Your task to perform on an android device: turn on location history Image 0: 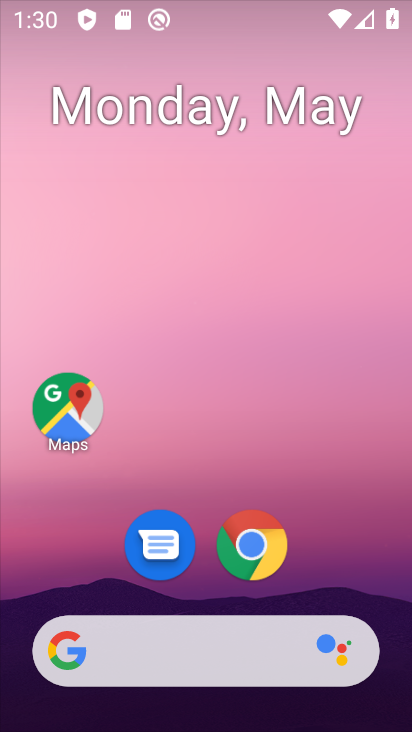
Step 0: drag from (296, 712) to (217, 127)
Your task to perform on an android device: turn on location history Image 1: 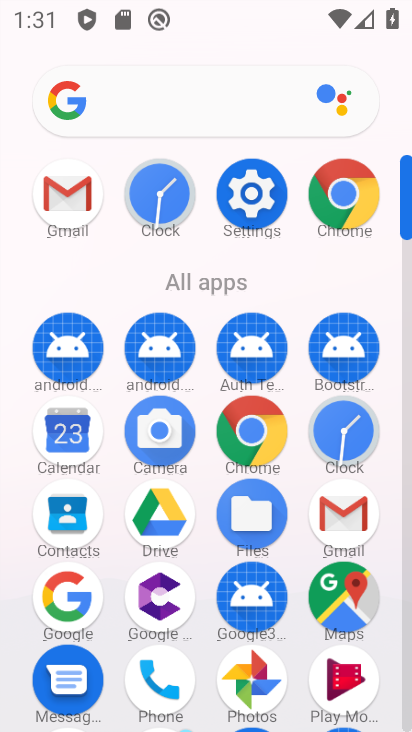
Step 1: click (251, 182)
Your task to perform on an android device: turn on location history Image 2: 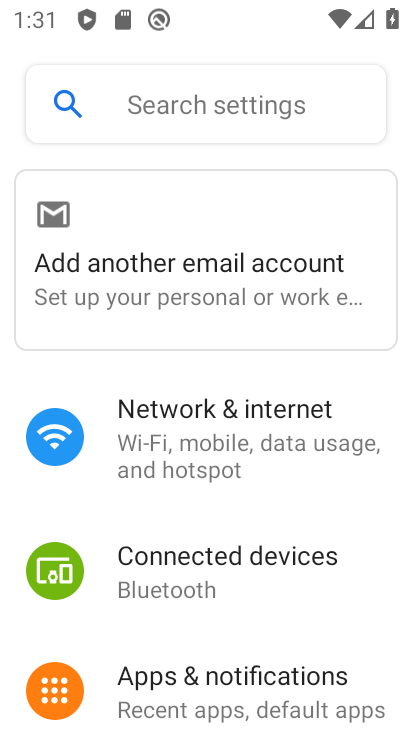
Step 2: drag from (272, 642) to (236, 100)
Your task to perform on an android device: turn on location history Image 3: 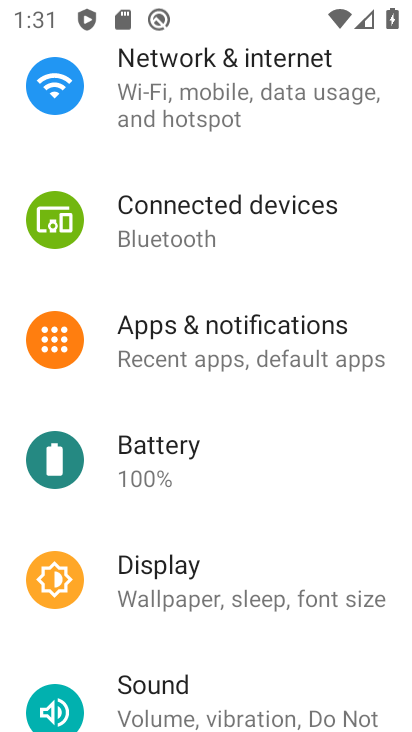
Step 3: drag from (254, 549) to (275, 122)
Your task to perform on an android device: turn on location history Image 4: 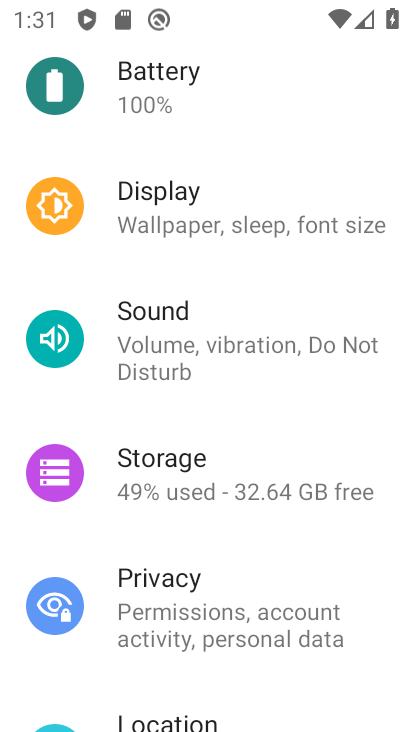
Step 4: drag from (212, 595) to (195, 141)
Your task to perform on an android device: turn on location history Image 5: 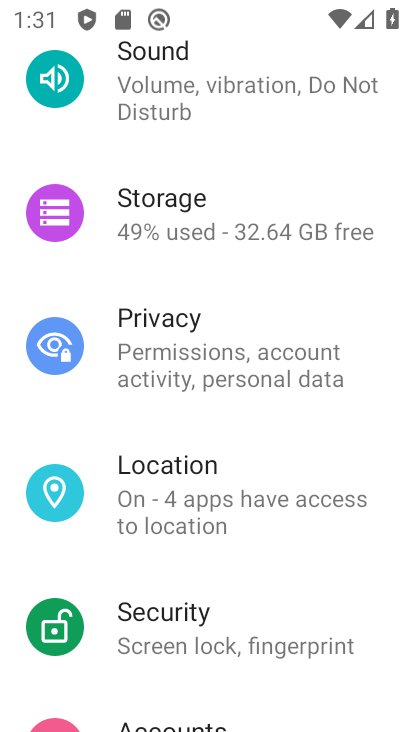
Step 5: click (200, 502)
Your task to perform on an android device: turn on location history Image 6: 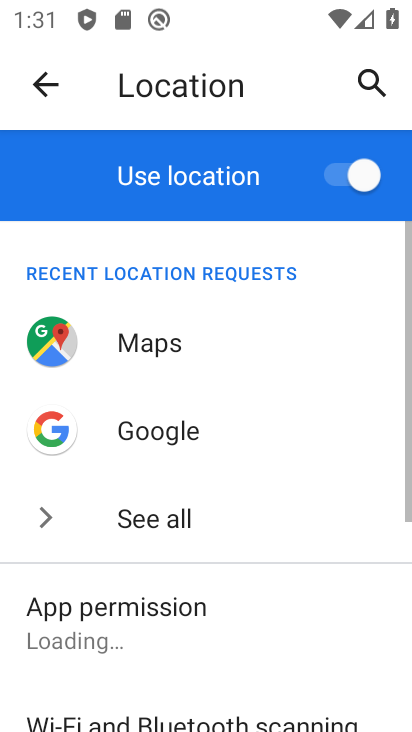
Step 6: drag from (276, 559) to (273, 61)
Your task to perform on an android device: turn on location history Image 7: 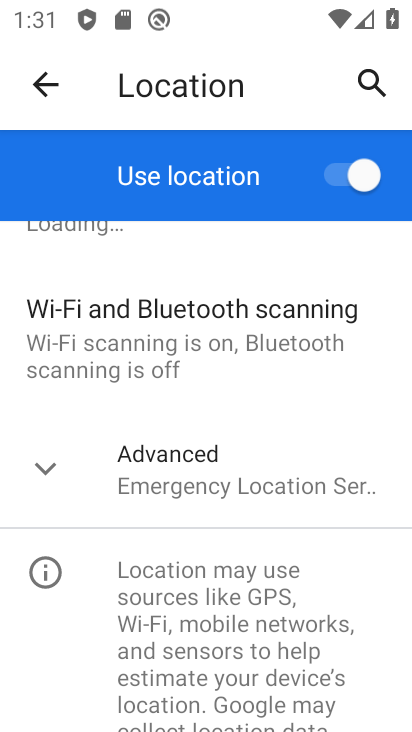
Step 7: click (283, 466)
Your task to perform on an android device: turn on location history Image 8: 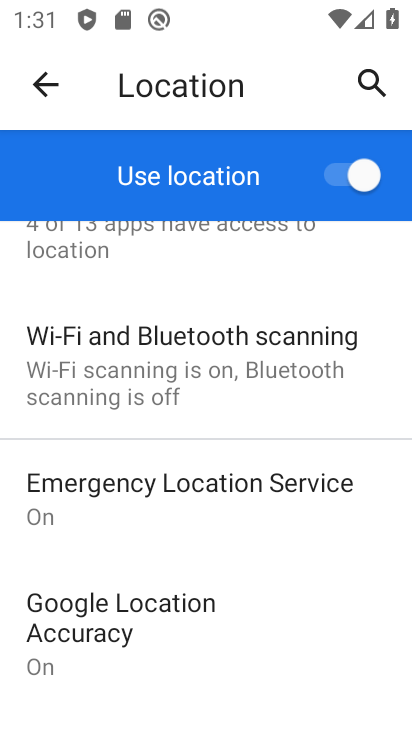
Step 8: drag from (214, 509) to (236, 78)
Your task to perform on an android device: turn on location history Image 9: 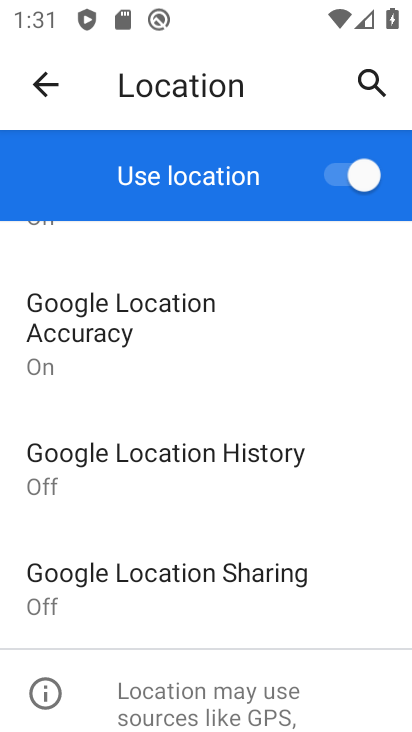
Step 9: click (297, 466)
Your task to perform on an android device: turn on location history Image 10: 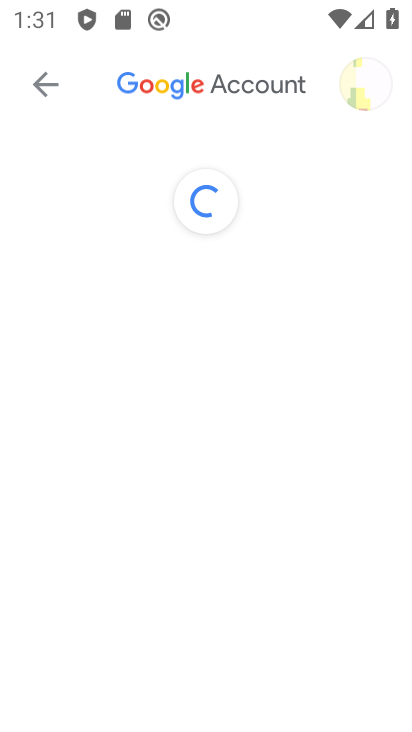
Step 10: drag from (205, 612) to (257, 33)
Your task to perform on an android device: turn on location history Image 11: 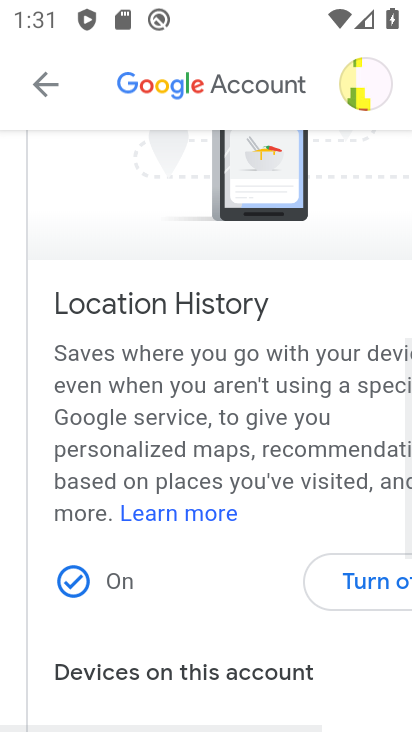
Step 11: drag from (194, 540) to (205, 95)
Your task to perform on an android device: turn on location history Image 12: 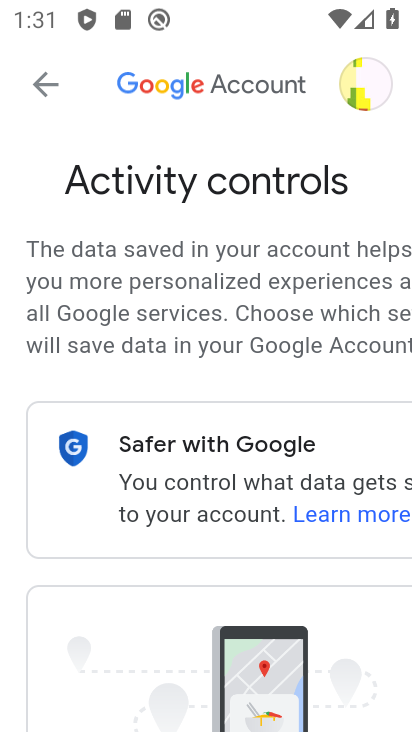
Step 12: drag from (285, 616) to (242, 104)
Your task to perform on an android device: turn on location history Image 13: 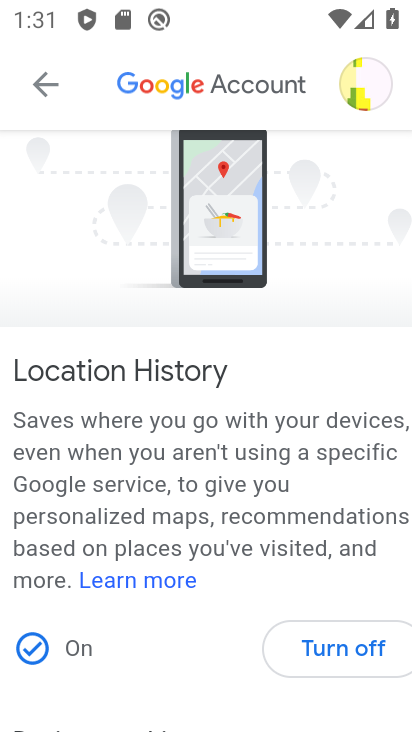
Step 13: click (331, 638)
Your task to perform on an android device: turn on location history Image 14: 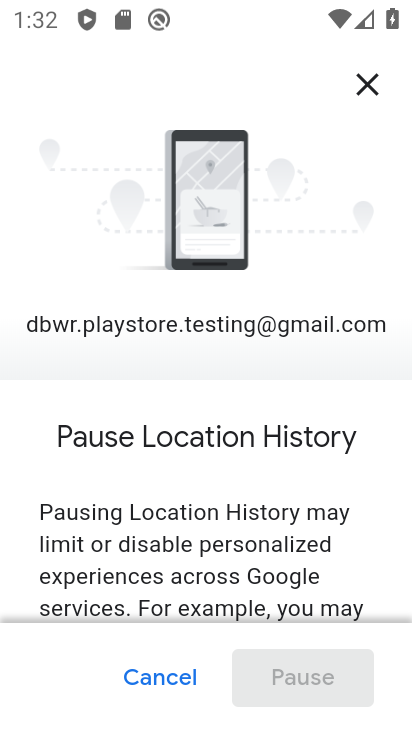
Step 14: drag from (318, 585) to (268, 124)
Your task to perform on an android device: turn on location history Image 15: 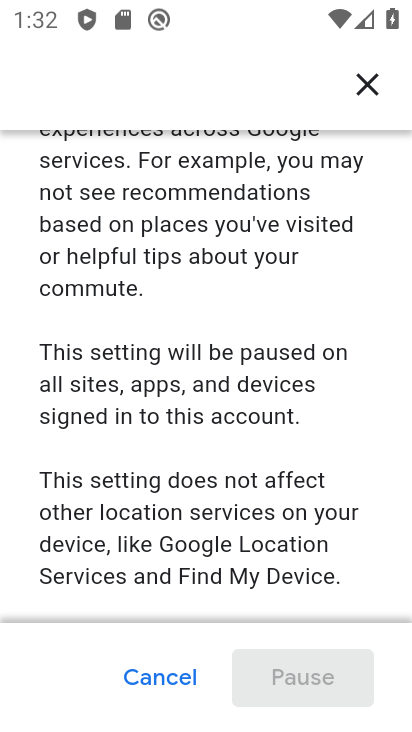
Step 15: drag from (206, 492) to (195, 146)
Your task to perform on an android device: turn on location history Image 16: 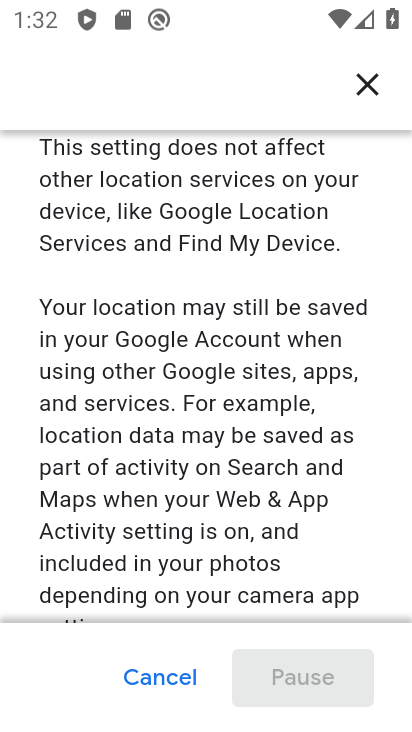
Step 16: drag from (255, 331) to (281, 170)
Your task to perform on an android device: turn on location history Image 17: 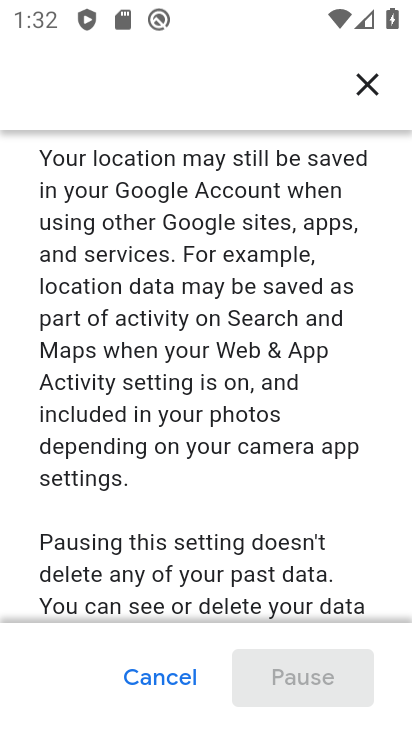
Step 17: drag from (155, 603) to (255, 149)
Your task to perform on an android device: turn on location history Image 18: 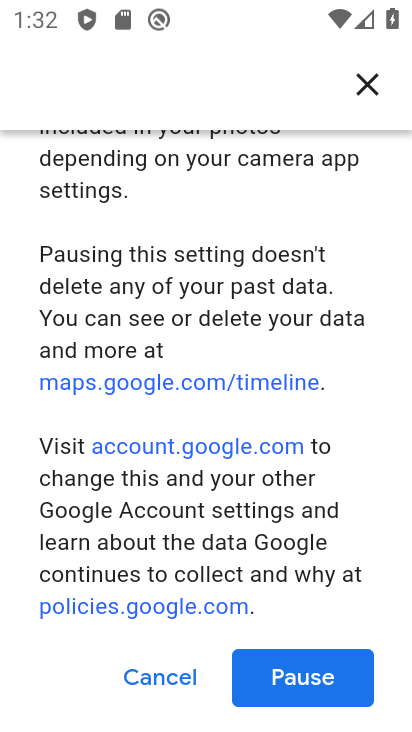
Step 18: drag from (158, 553) to (241, 141)
Your task to perform on an android device: turn on location history Image 19: 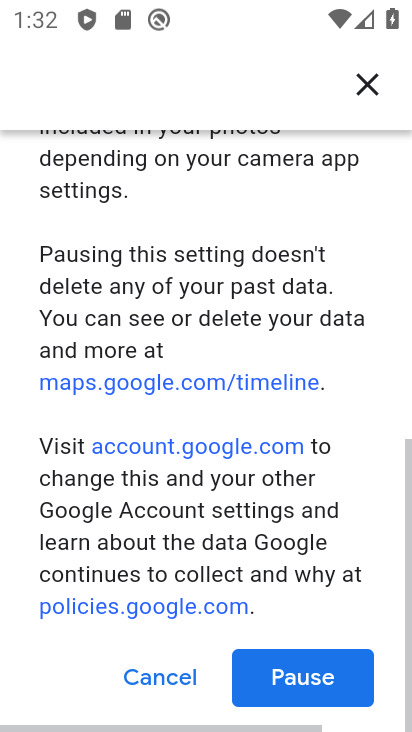
Step 19: click (338, 677)
Your task to perform on an android device: turn on location history Image 20: 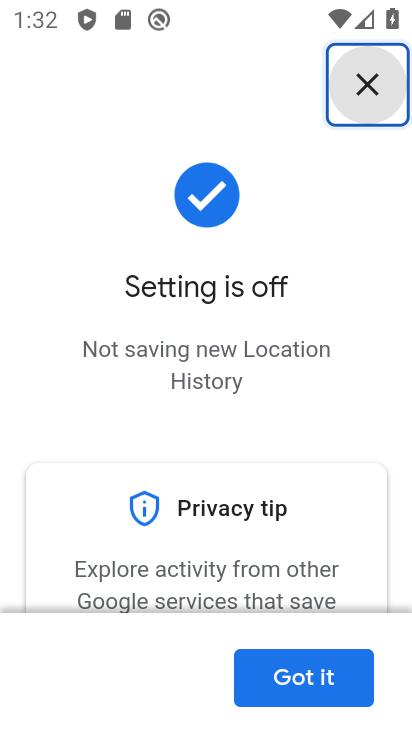
Step 20: click (298, 699)
Your task to perform on an android device: turn on location history Image 21: 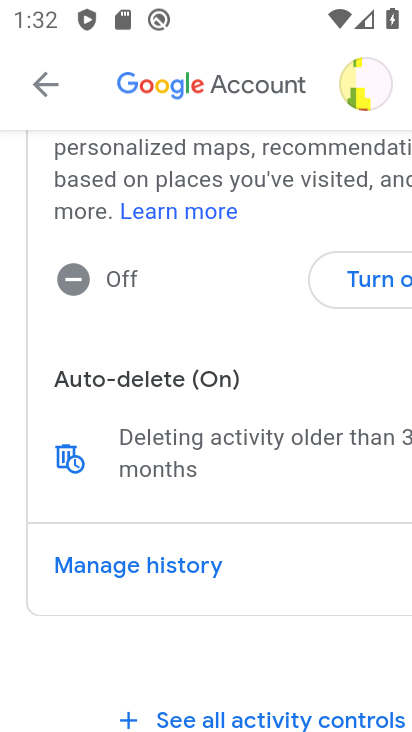
Step 21: task complete